Your task to perform on an android device: visit the assistant section in the google photos Image 0: 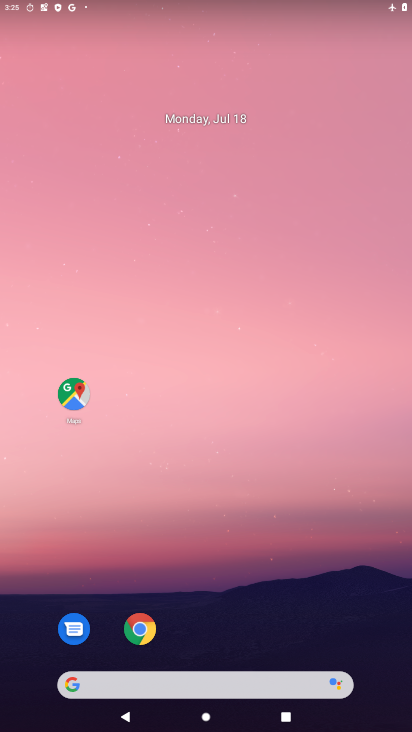
Step 0: drag from (211, 663) to (106, 3)
Your task to perform on an android device: visit the assistant section in the google photos Image 1: 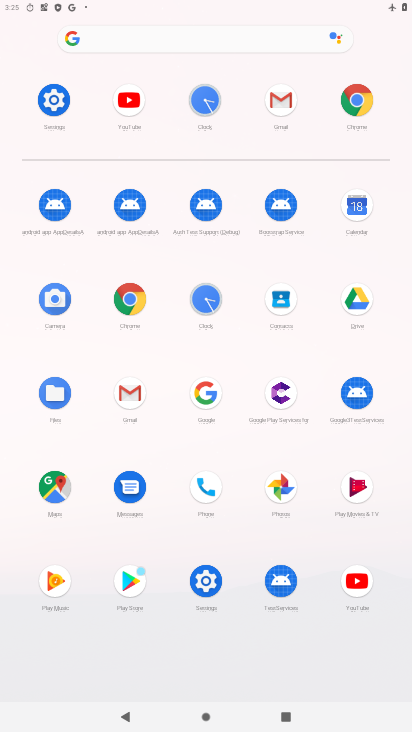
Step 1: click (290, 488)
Your task to perform on an android device: visit the assistant section in the google photos Image 2: 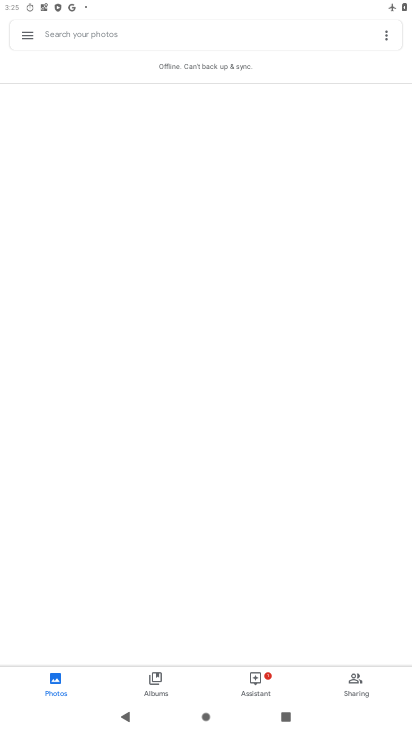
Step 2: click (256, 683)
Your task to perform on an android device: visit the assistant section in the google photos Image 3: 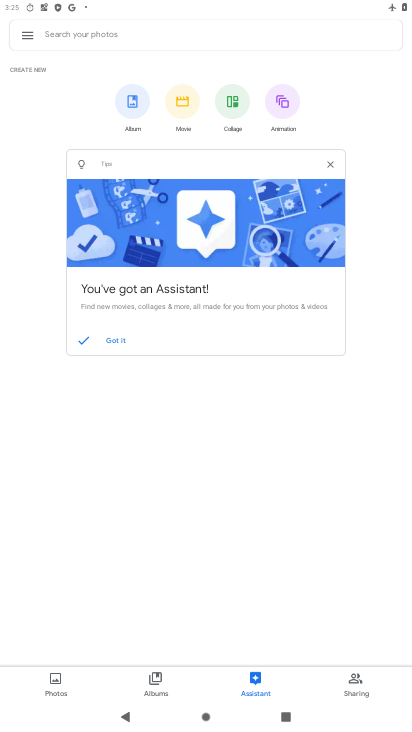
Step 3: task complete